Your task to perform on an android device: Search for flights from Zurich to Buenos aires Image 0: 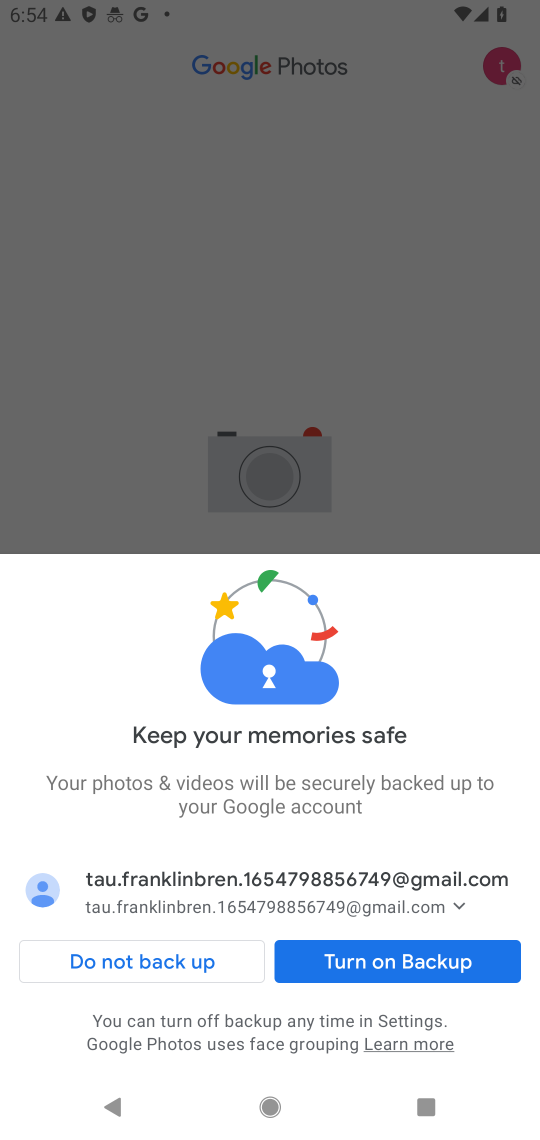
Step 0: press home button
Your task to perform on an android device: Search for flights from Zurich to Buenos aires Image 1: 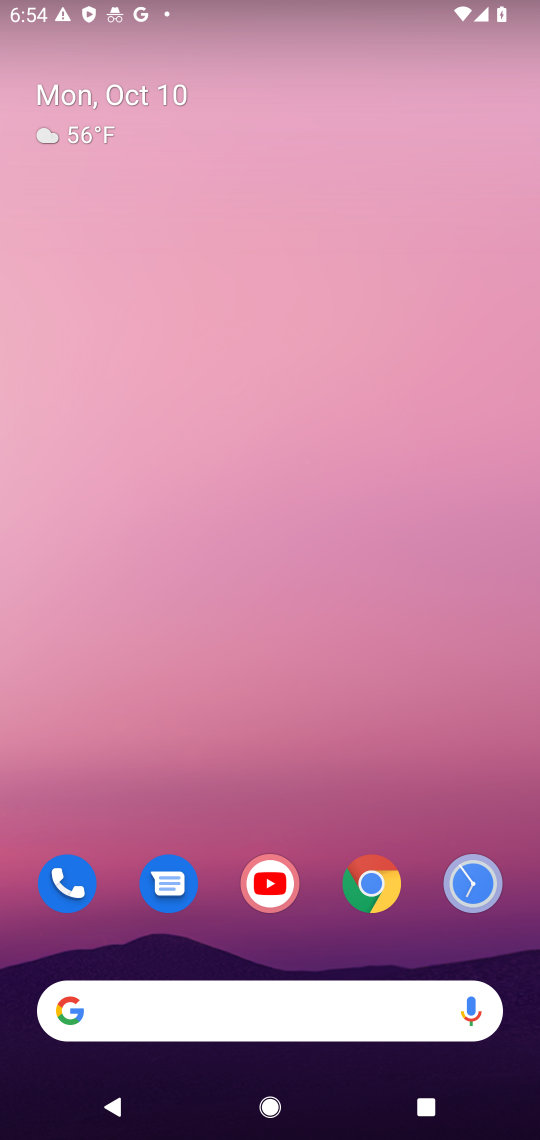
Step 1: drag from (328, 905) to (230, 39)
Your task to perform on an android device: Search for flights from Zurich to Buenos aires Image 2: 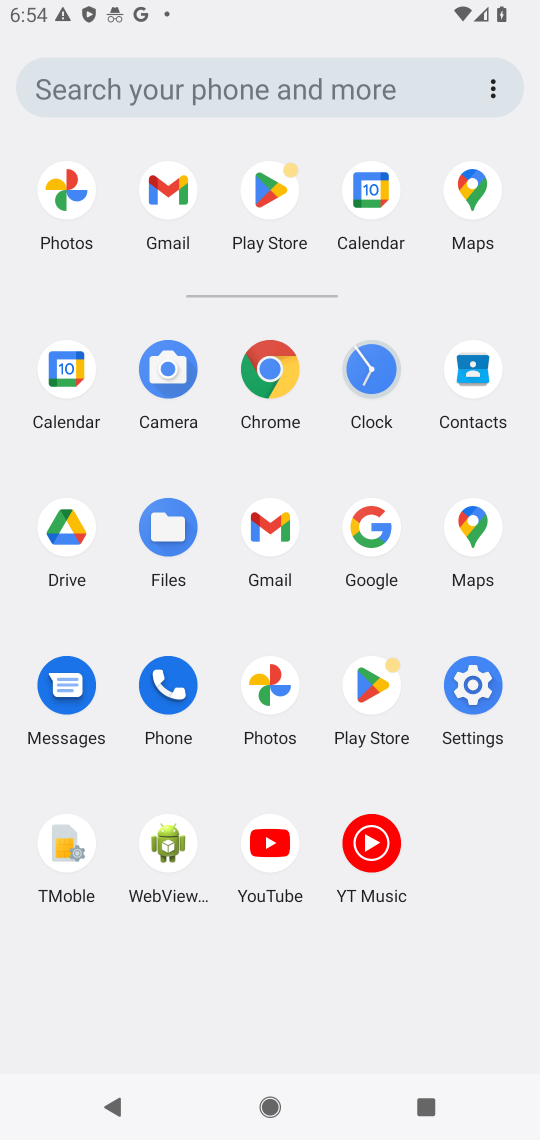
Step 2: click (362, 539)
Your task to perform on an android device: Search for flights from Zurich to Buenos aires Image 3: 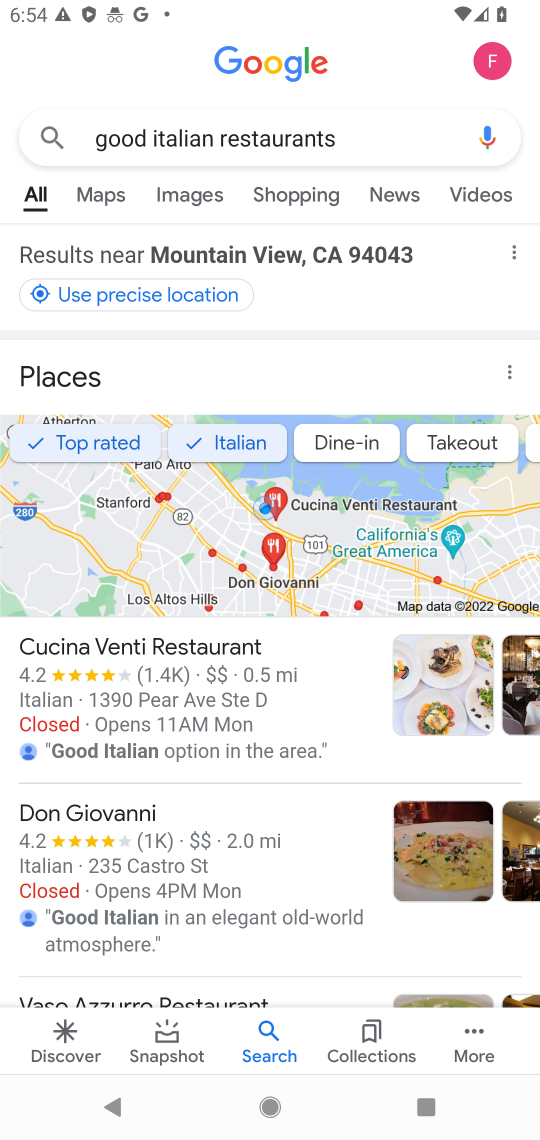
Step 3: click (424, 128)
Your task to perform on an android device: Search for flights from Zurich to Buenos aires Image 4: 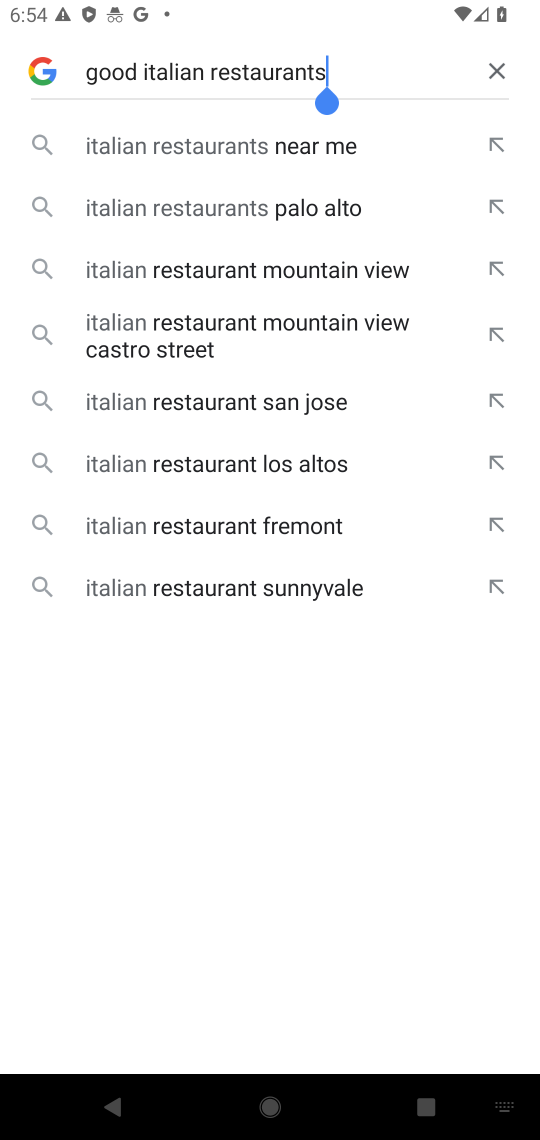
Step 4: click (509, 79)
Your task to perform on an android device: Search for flights from Zurich to Buenos aires Image 5: 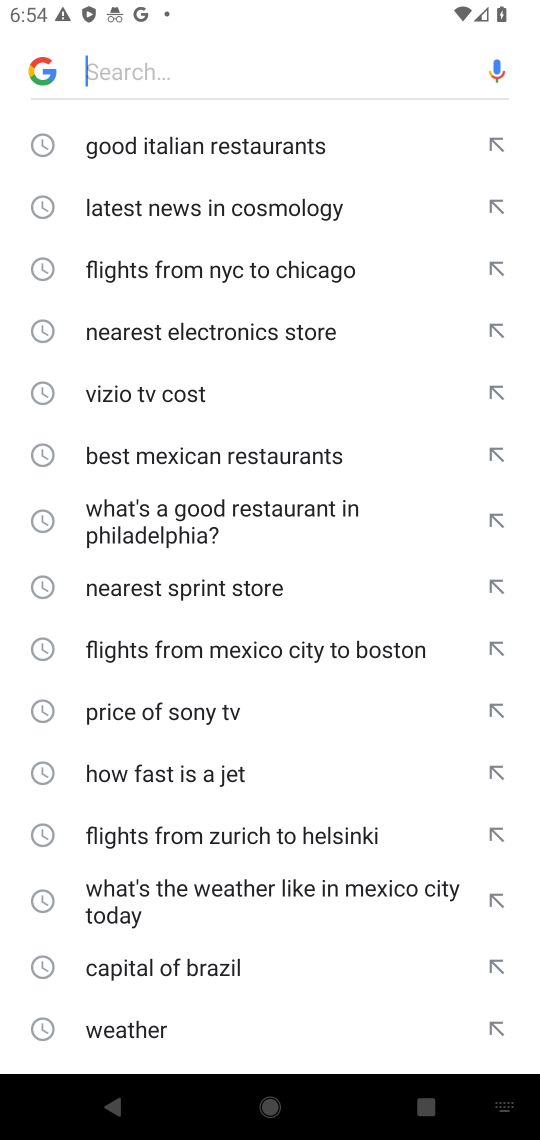
Step 5: type "flights from Zurich to Buenos aires"
Your task to perform on an android device: Search for flights from Zurich to Buenos aires Image 6: 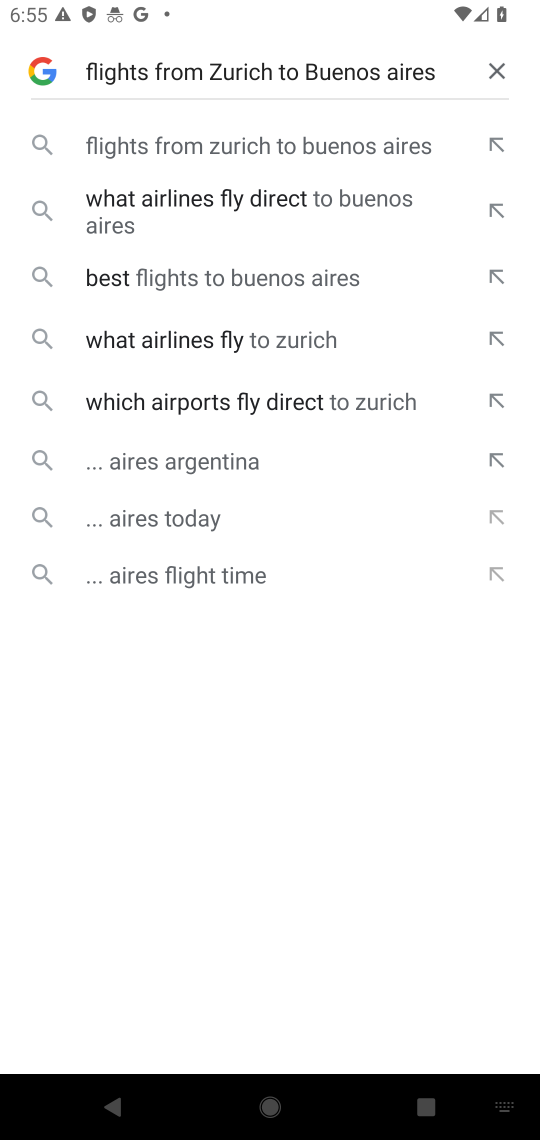
Step 6: click (269, 146)
Your task to perform on an android device: Search for flights from Zurich to Buenos aires Image 7: 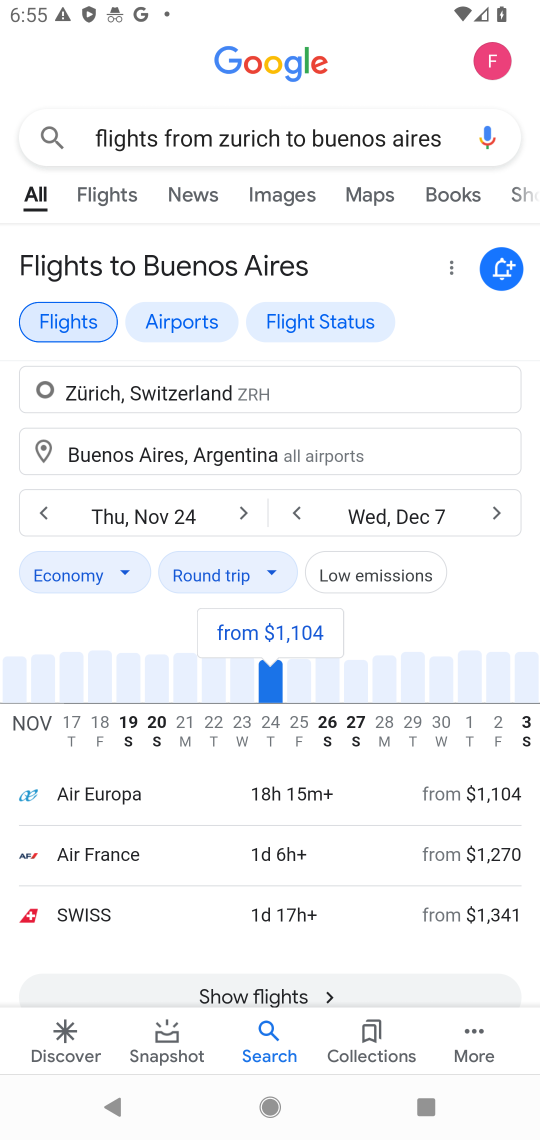
Step 7: click (137, 203)
Your task to perform on an android device: Search for flights from Zurich to Buenos aires Image 8: 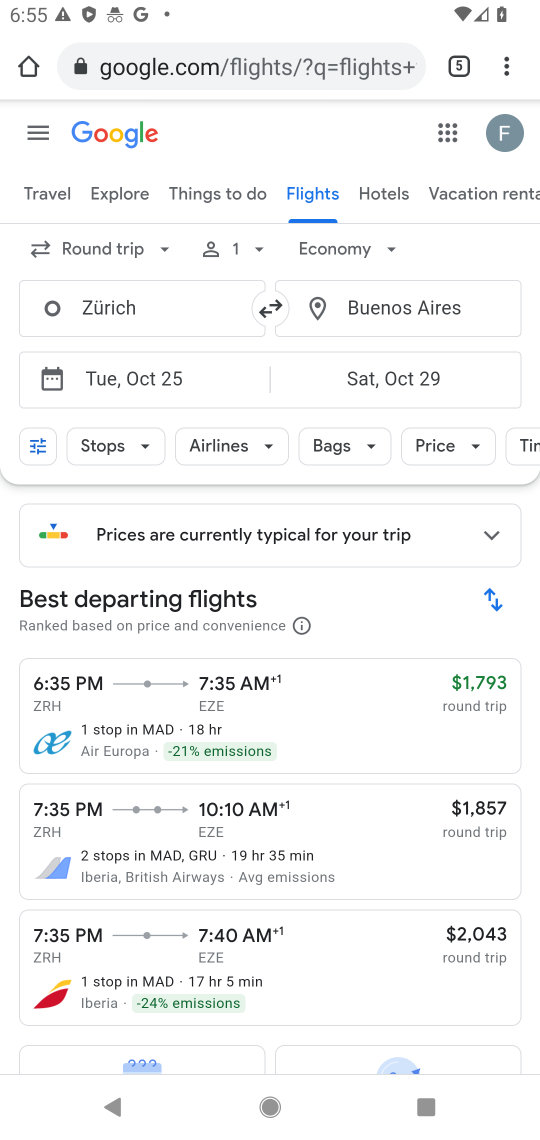
Step 8: task complete